Your task to perform on an android device: turn on location history Image 0: 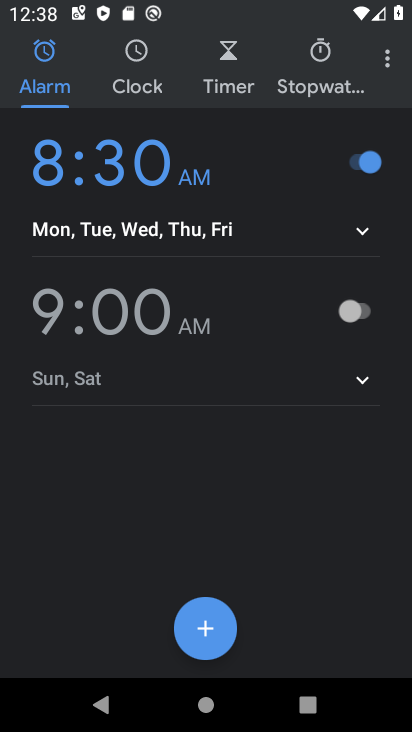
Step 0: press home button
Your task to perform on an android device: turn on location history Image 1: 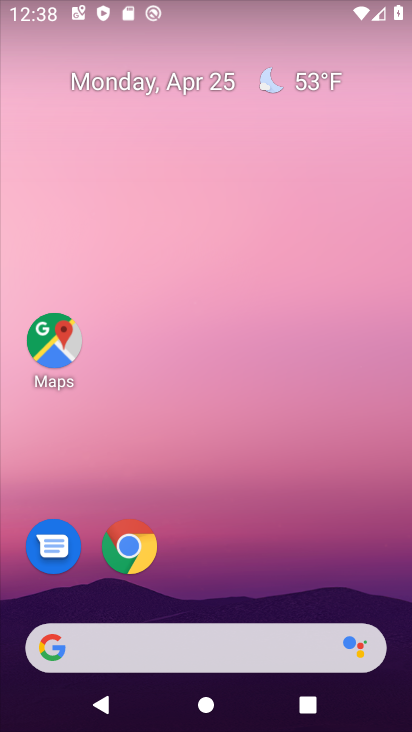
Step 1: drag from (217, 587) to (225, 138)
Your task to perform on an android device: turn on location history Image 2: 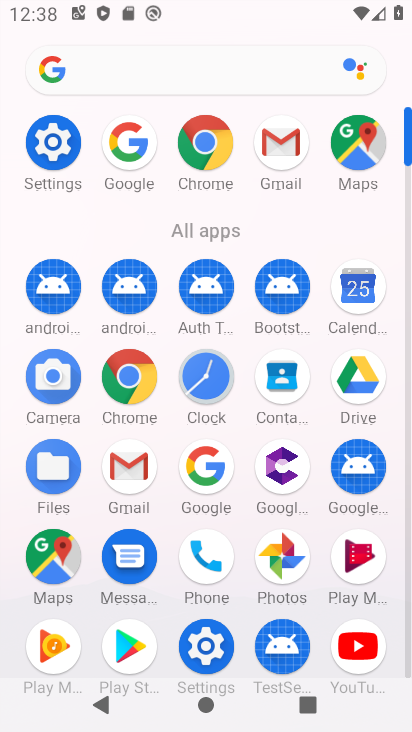
Step 2: click (38, 148)
Your task to perform on an android device: turn on location history Image 3: 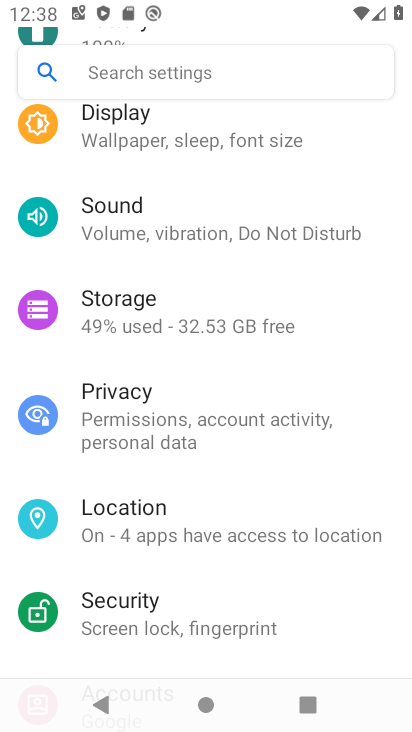
Step 3: click (188, 536)
Your task to perform on an android device: turn on location history Image 4: 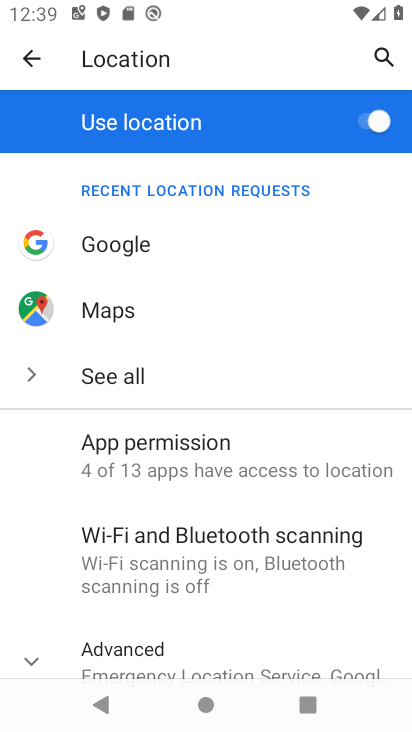
Step 4: drag from (217, 613) to (242, 328)
Your task to perform on an android device: turn on location history Image 5: 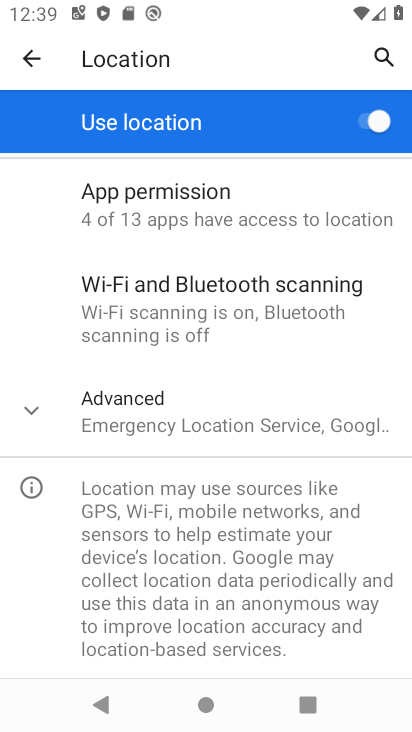
Step 5: click (164, 400)
Your task to perform on an android device: turn on location history Image 6: 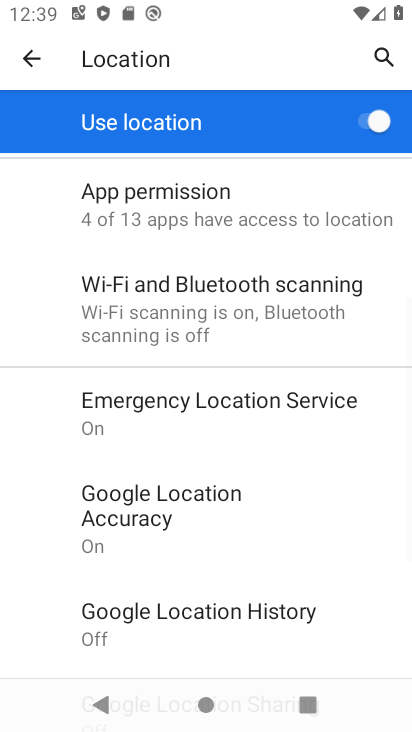
Step 6: click (240, 616)
Your task to perform on an android device: turn on location history Image 7: 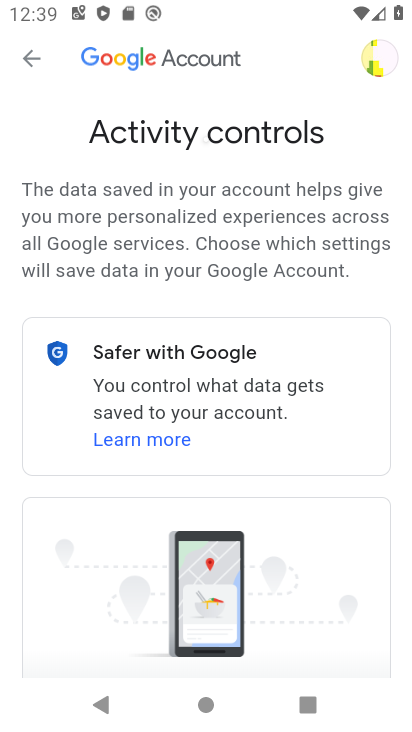
Step 7: task complete